Your task to perform on an android device: Search for the best way to make a resume. Image 0: 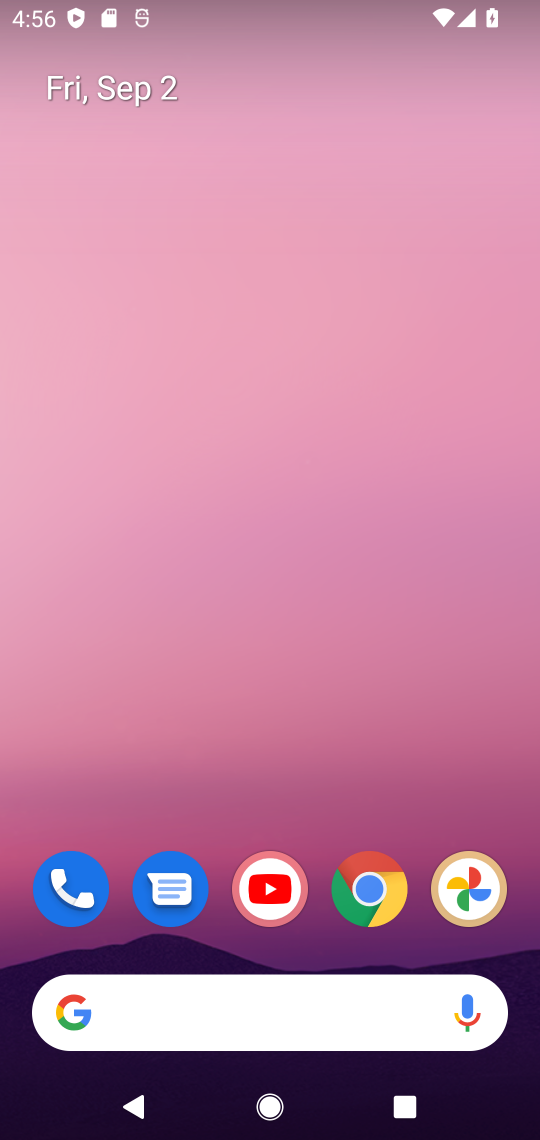
Step 0: click (209, 990)
Your task to perform on an android device: Search for the best way to make a resume. Image 1: 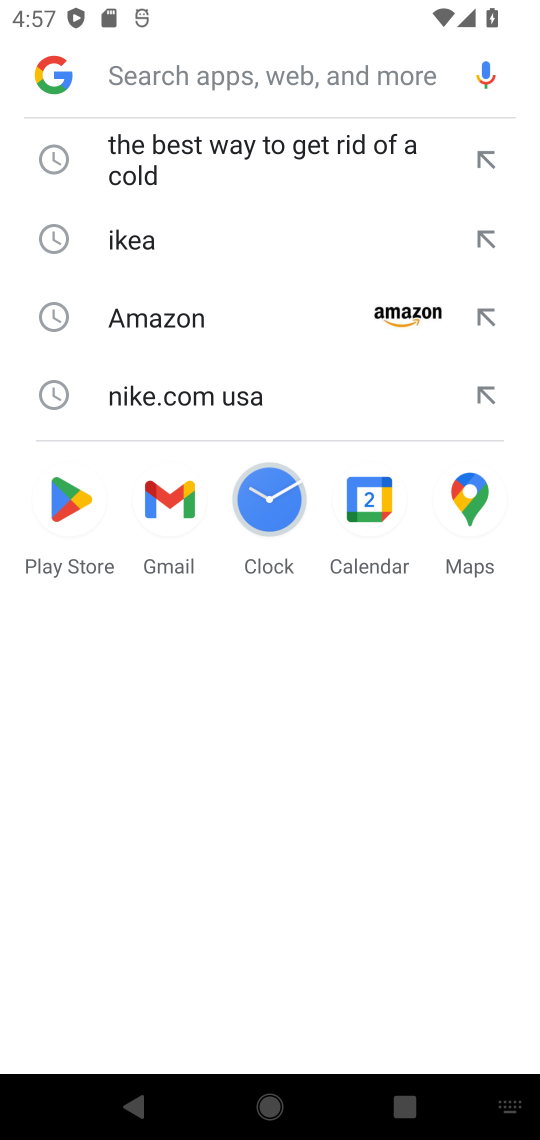
Step 1: type "best way to make a resume"
Your task to perform on an android device: Search for the best way to make a resume. Image 2: 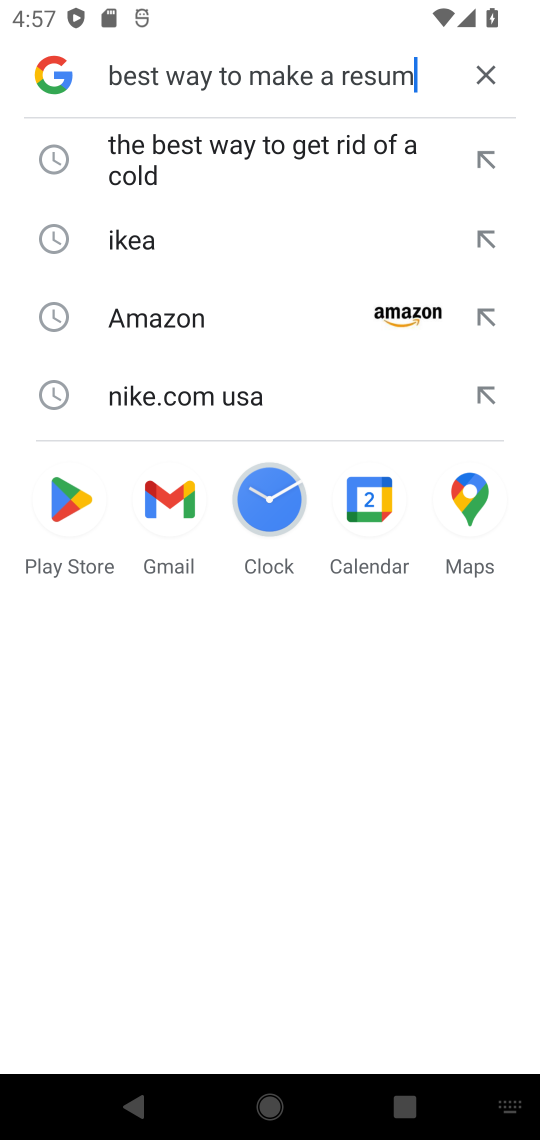
Step 2: type ""
Your task to perform on an android device: Search for the best way to make a resume. Image 3: 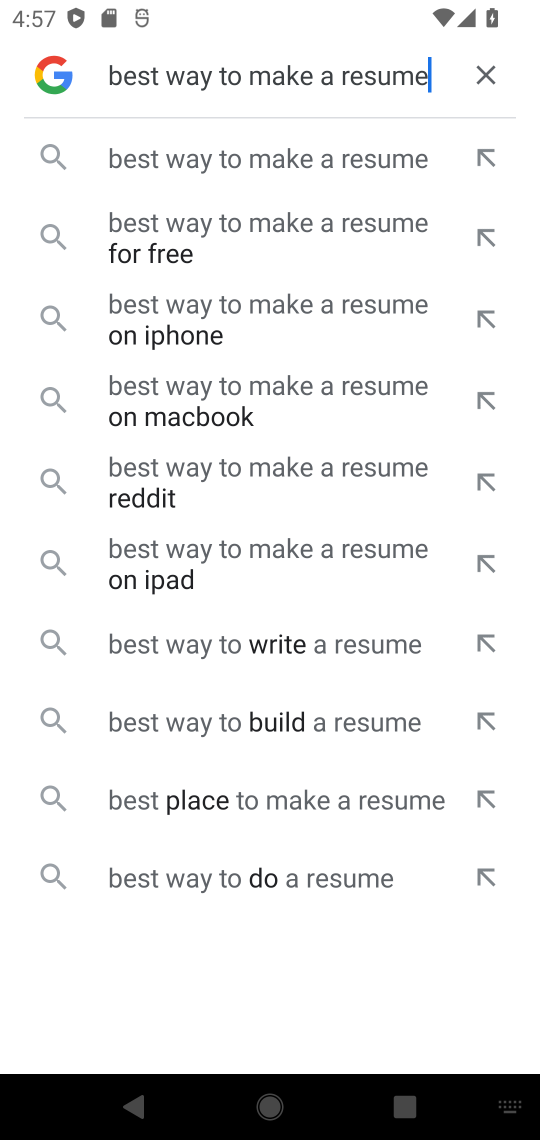
Step 3: click (302, 168)
Your task to perform on an android device: Search for the best way to make a resume. Image 4: 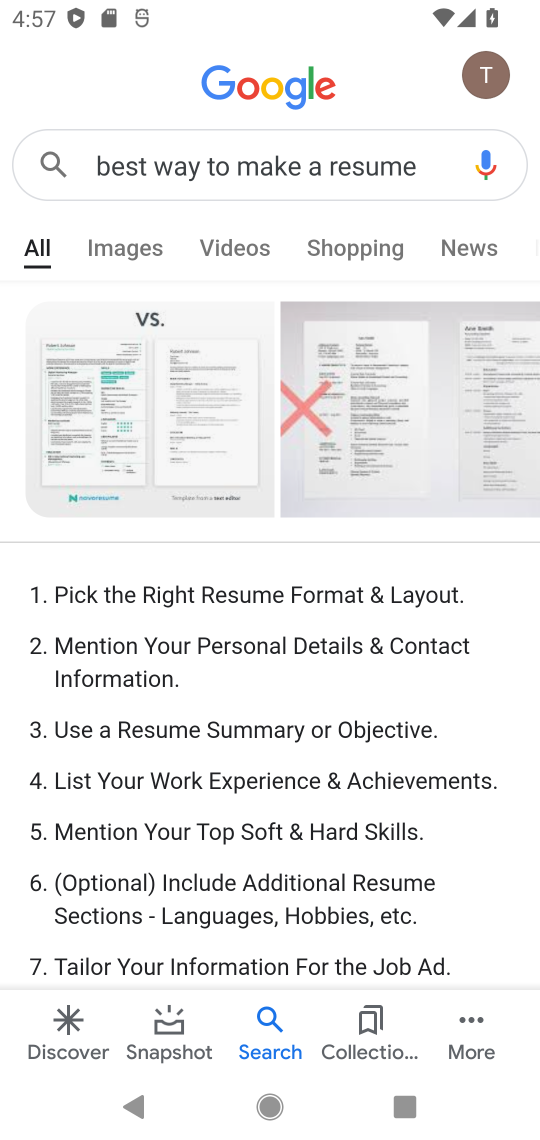
Step 4: drag from (328, 846) to (379, 628)
Your task to perform on an android device: Search for the best way to make a resume. Image 5: 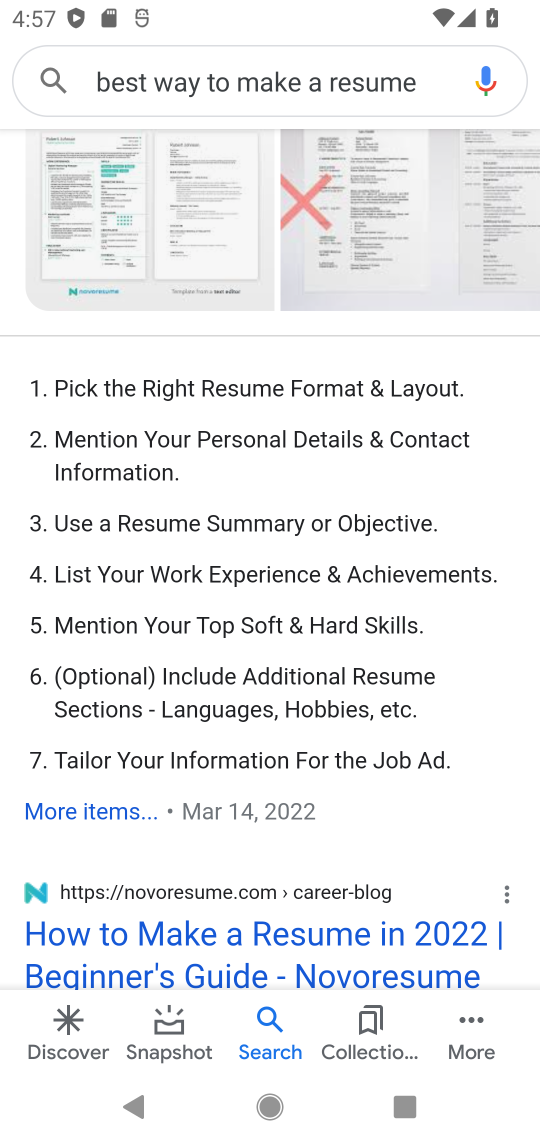
Step 5: click (361, 641)
Your task to perform on an android device: Search for the best way to make a resume. Image 6: 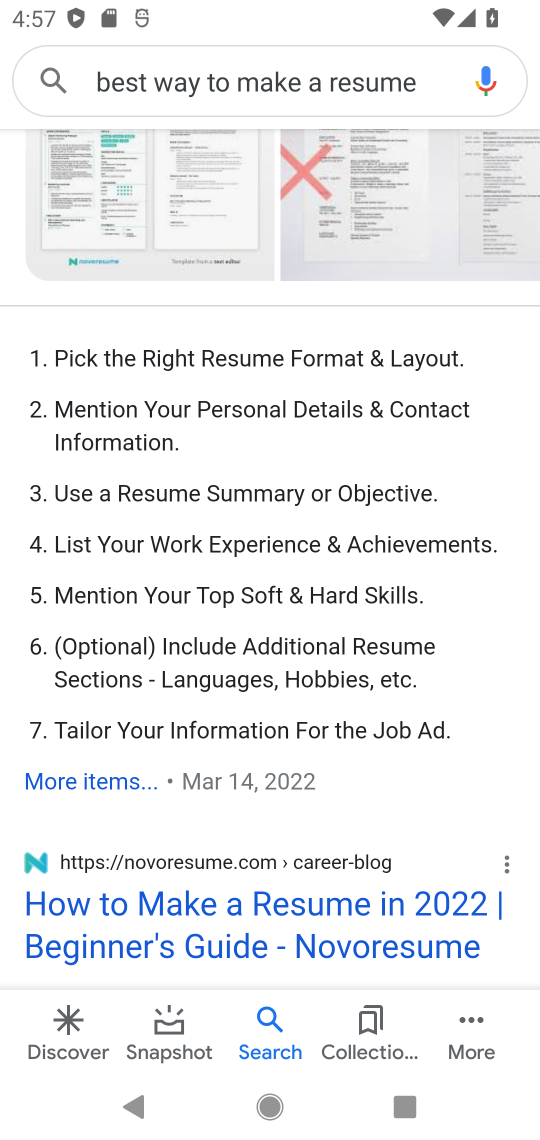
Step 6: task complete